Your task to perform on an android device: check battery use Image 0: 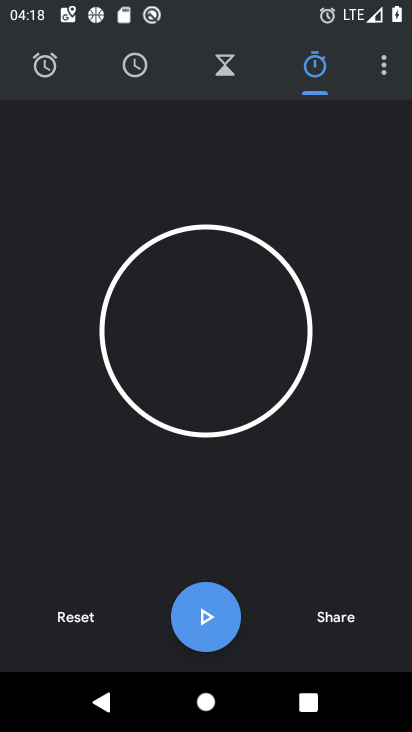
Step 0: press back button
Your task to perform on an android device: check battery use Image 1: 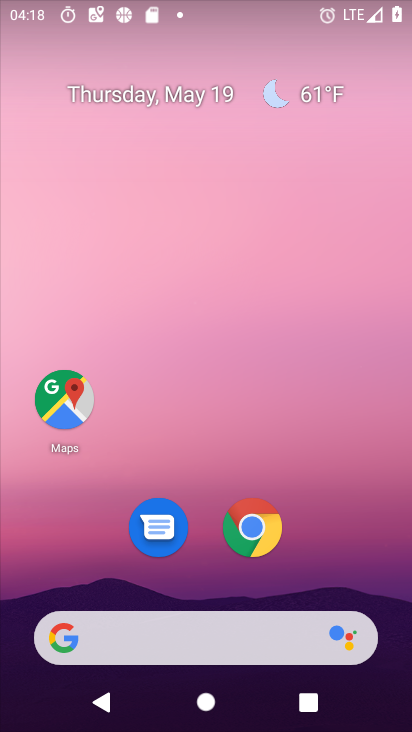
Step 1: drag from (246, 571) to (315, 37)
Your task to perform on an android device: check battery use Image 2: 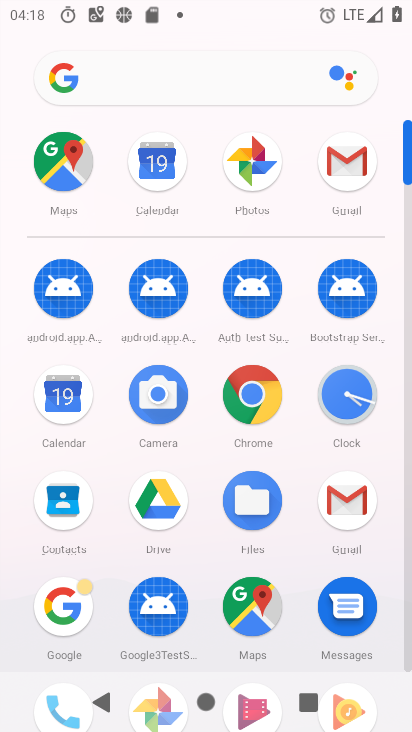
Step 2: drag from (201, 552) to (315, 114)
Your task to perform on an android device: check battery use Image 3: 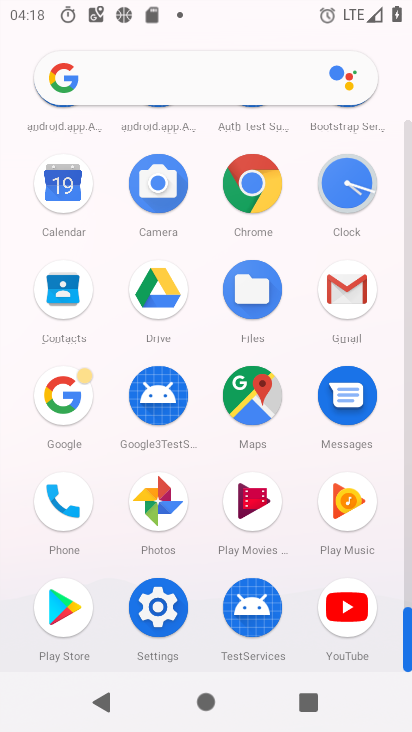
Step 3: click (162, 622)
Your task to perform on an android device: check battery use Image 4: 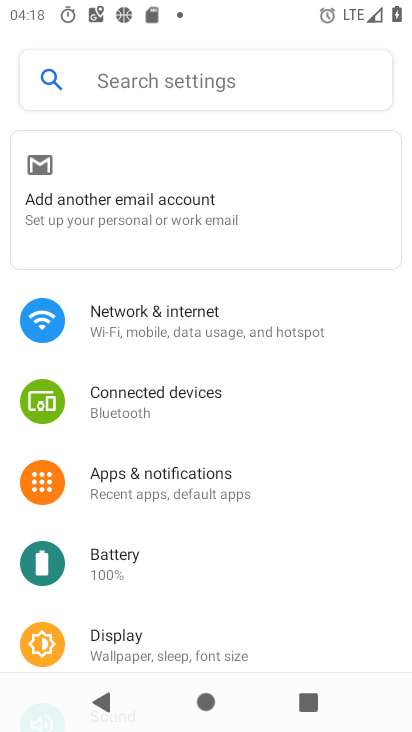
Step 4: click (143, 562)
Your task to perform on an android device: check battery use Image 5: 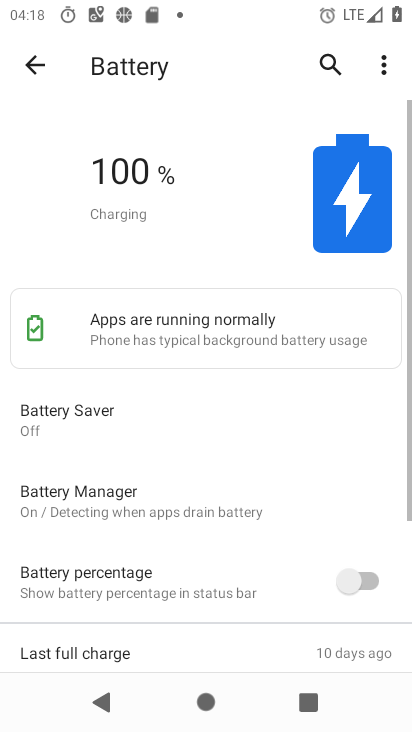
Step 5: click (381, 57)
Your task to perform on an android device: check battery use Image 6: 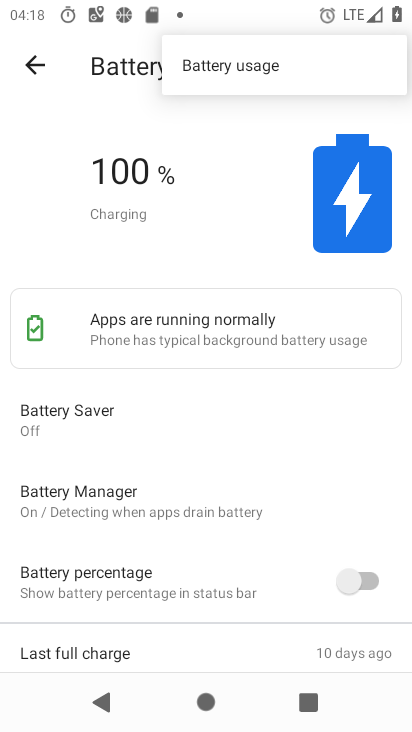
Step 6: click (229, 54)
Your task to perform on an android device: check battery use Image 7: 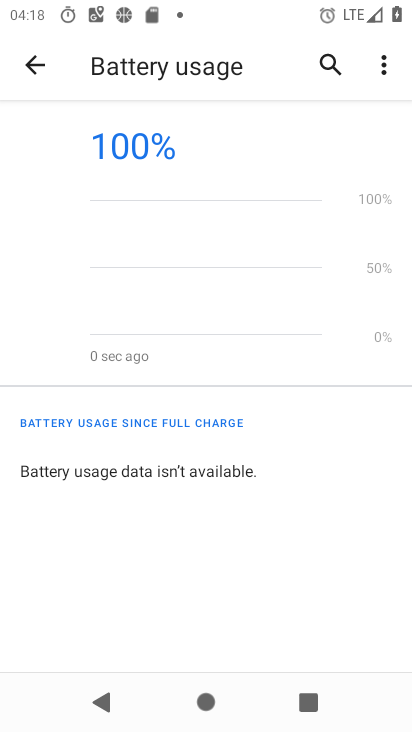
Step 7: task complete